Your task to perform on an android device: choose inbox layout in the gmail app Image 0: 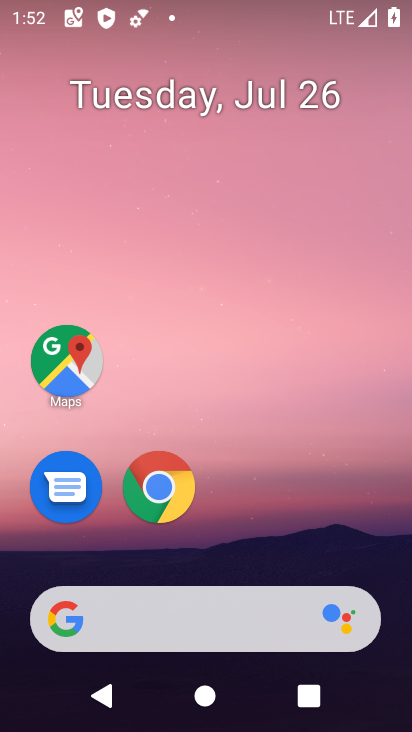
Step 0: drag from (249, 631) to (267, 260)
Your task to perform on an android device: choose inbox layout in the gmail app Image 1: 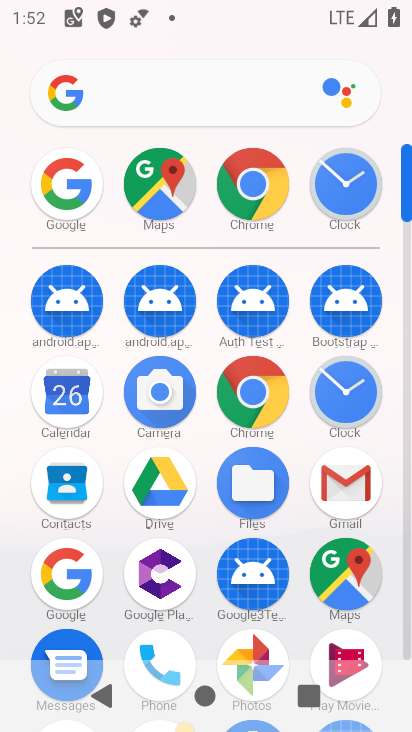
Step 1: click (347, 496)
Your task to perform on an android device: choose inbox layout in the gmail app Image 2: 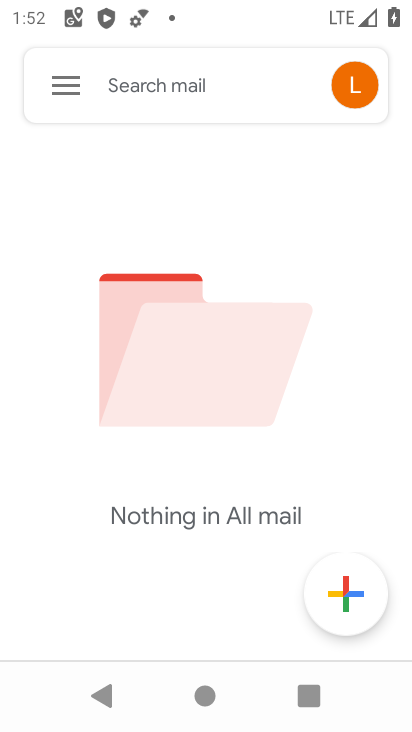
Step 2: click (58, 86)
Your task to perform on an android device: choose inbox layout in the gmail app Image 3: 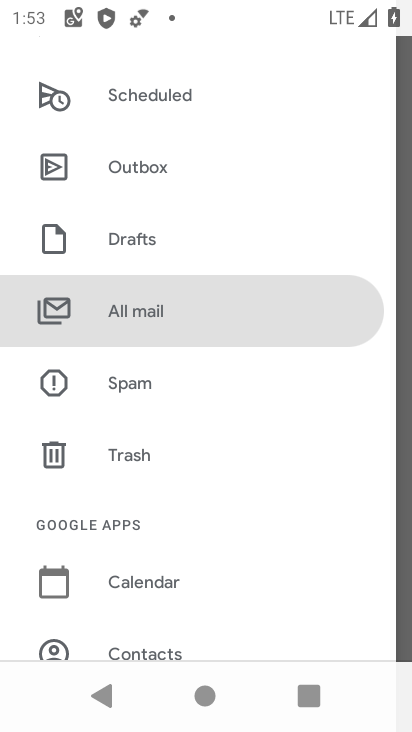
Step 3: task complete